Your task to perform on an android device: turn off notifications in google photos Image 0: 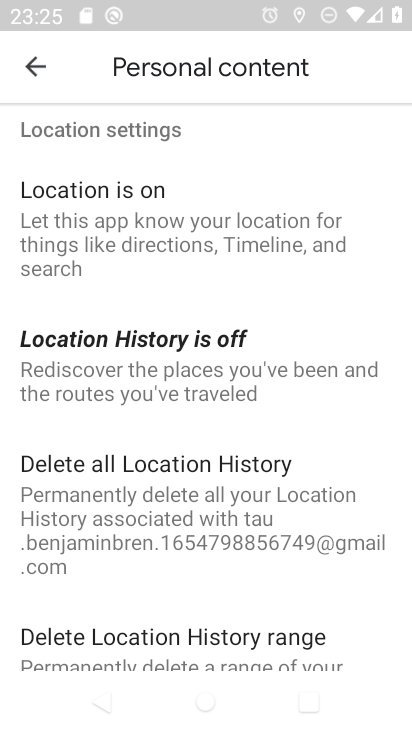
Step 0: press home button
Your task to perform on an android device: turn off notifications in google photos Image 1: 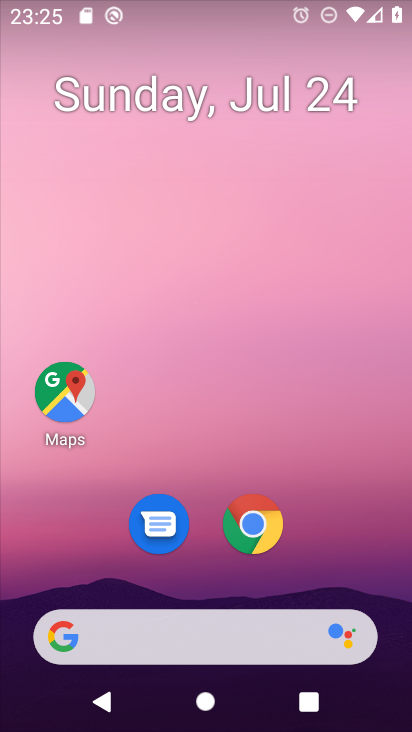
Step 1: drag from (159, 641) to (249, 145)
Your task to perform on an android device: turn off notifications in google photos Image 2: 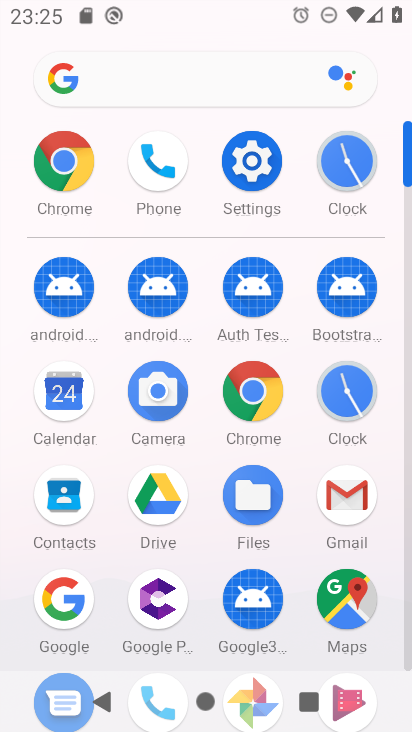
Step 2: drag from (209, 563) to (326, 107)
Your task to perform on an android device: turn off notifications in google photos Image 3: 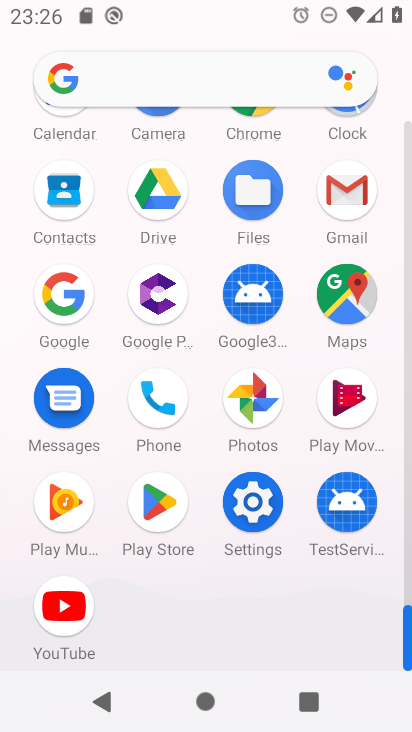
Step 3: click (263, 386)
Your task to perform on an android device: turn off notifications in google photos Image 4: 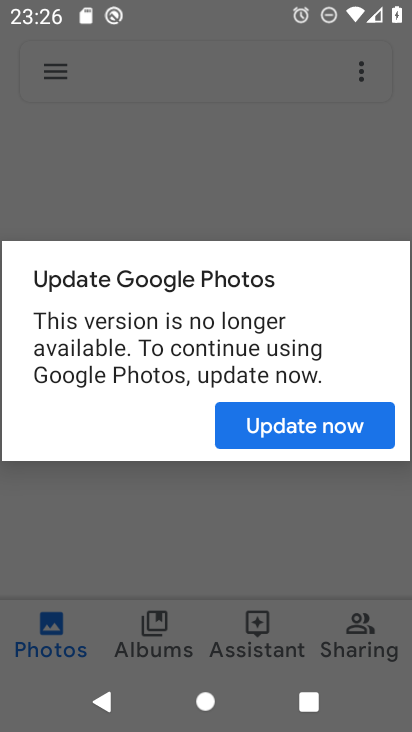
Step 4: click (276, 431)
Your task to perform on an android device: turn off notifications in google photos Image 5: 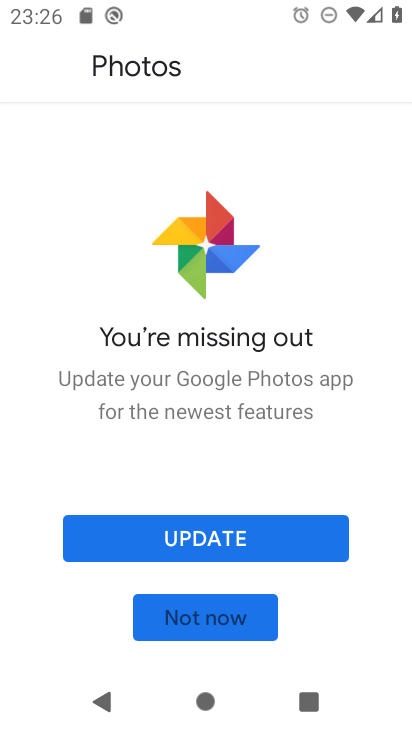
Step 5: click (215, 614)
Your task to perform on an android device: turn off notifications in google photos Image 6: 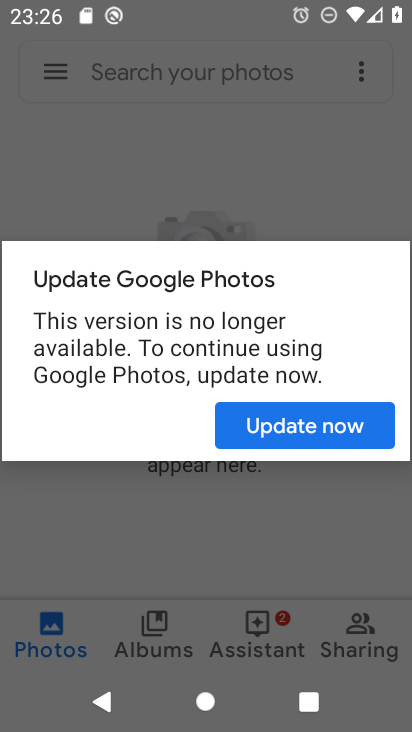
Step 6: click (321, 419)
Your task to perform on an android device: turn off notifications in google photos Image 7: 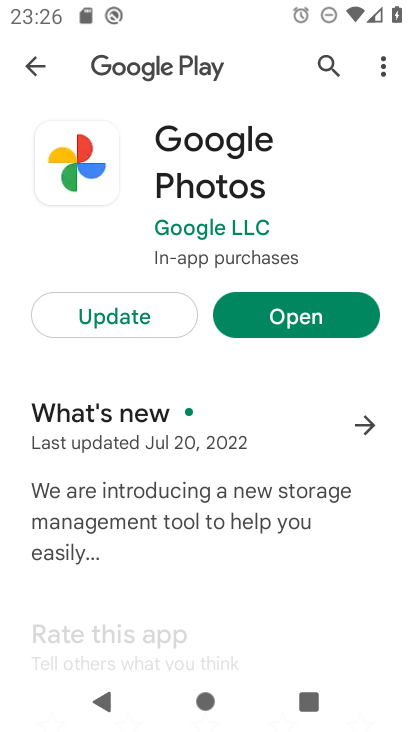
Step 7: click (320, 323)
Your task to perform on an android device: turn off notifications in google photos Image 8: 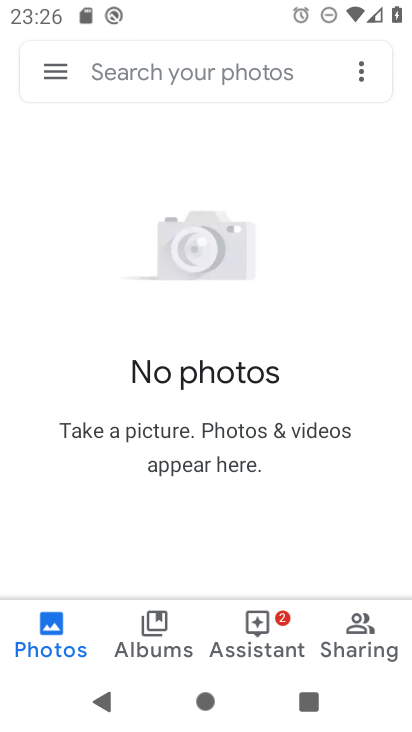
Step 8: click (63, 76)
Your task to perform on an android device: turn off notifications in google photos Image 9: 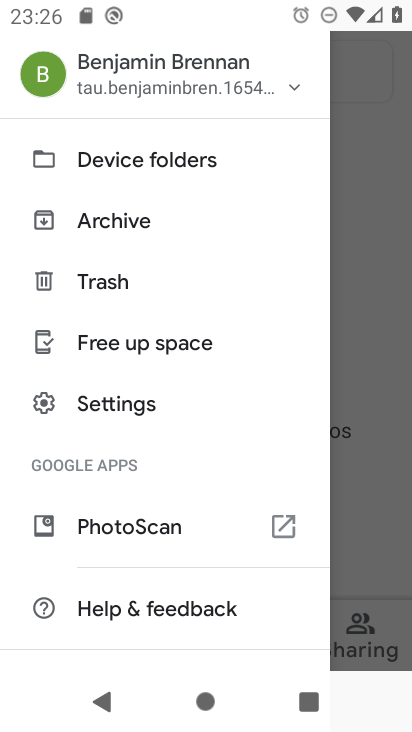
Step 9: click (122, 407)
Your task to perform on an android device: turn off notifications in google photos Image 10: 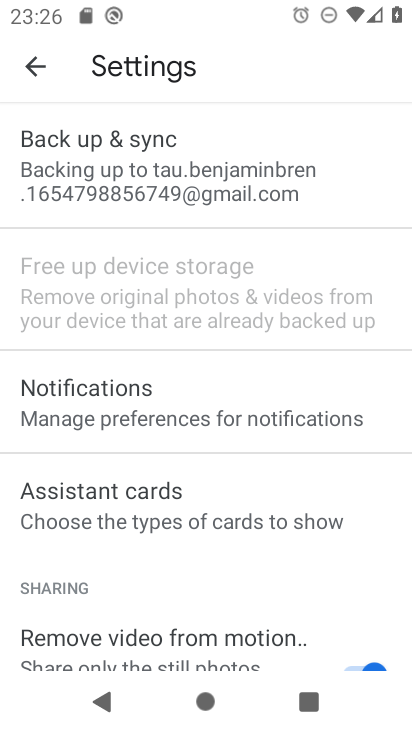
Step 10: click (192, 383)
Your task to perform on an android device: turn off notifications in google photos Image 11: 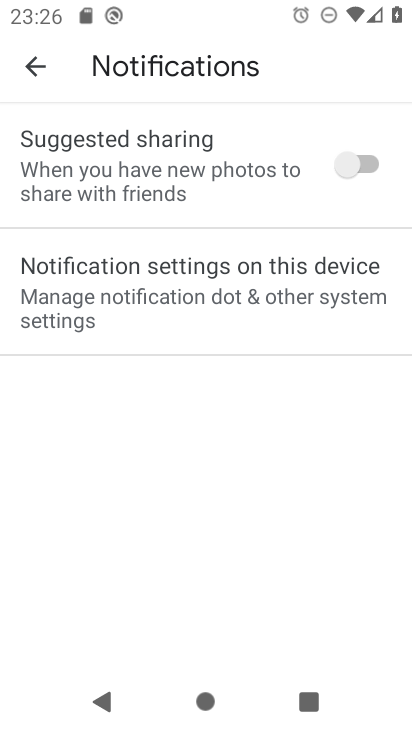
Step 11: click (263, 266)
Your task to perform on an android device: turn off notifications in google photos Image 12: 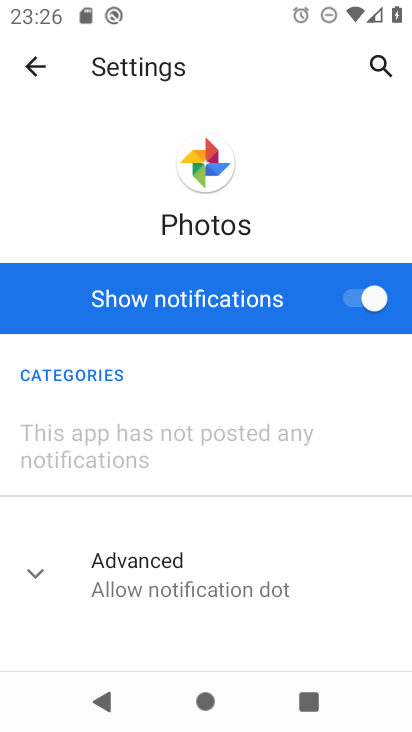
Step 12: click (356, 298)
Your task to perform on an android device: turn off notifications in google photos Image 13: 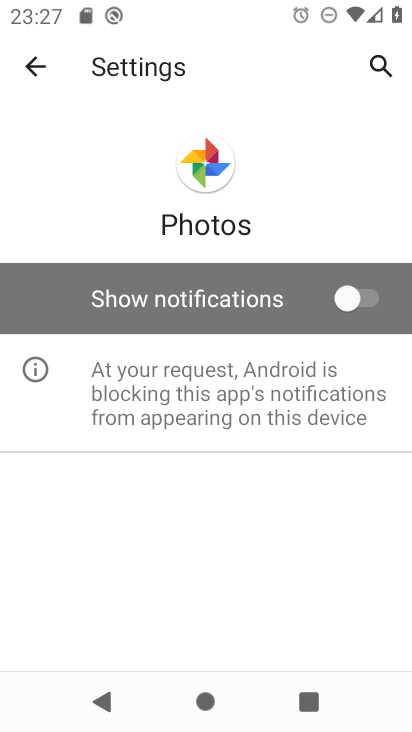
Step 13: task complete